Your task to perform on an android device: Add bose soundlink mini to the cart on bestbuy, then select checkout. Image 0: 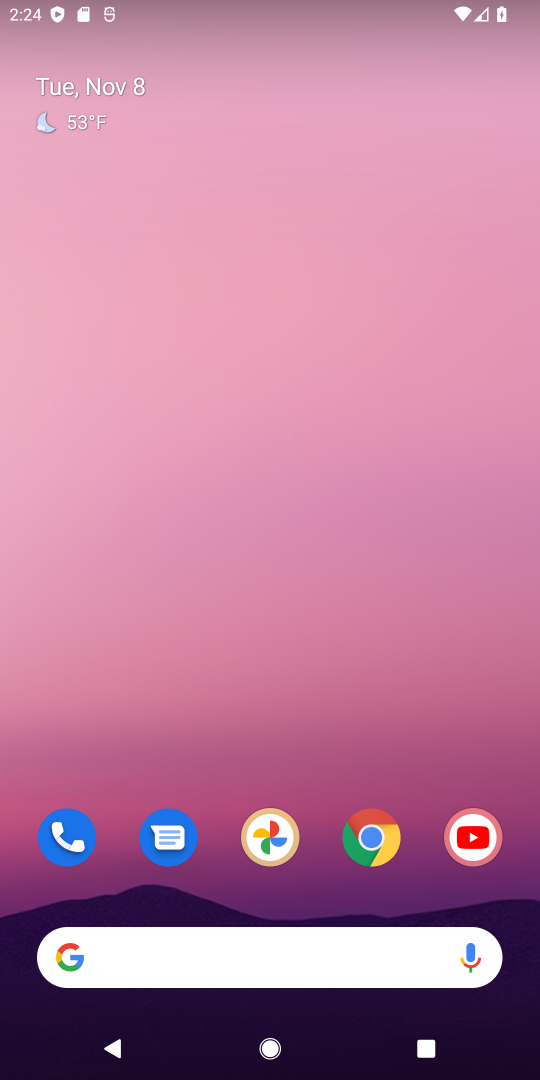
Step 0: click (377, 843)
Your task to perform on an android device: Add bose soundlink mini to the cart on bestbuy, then select checkout. Image 1: 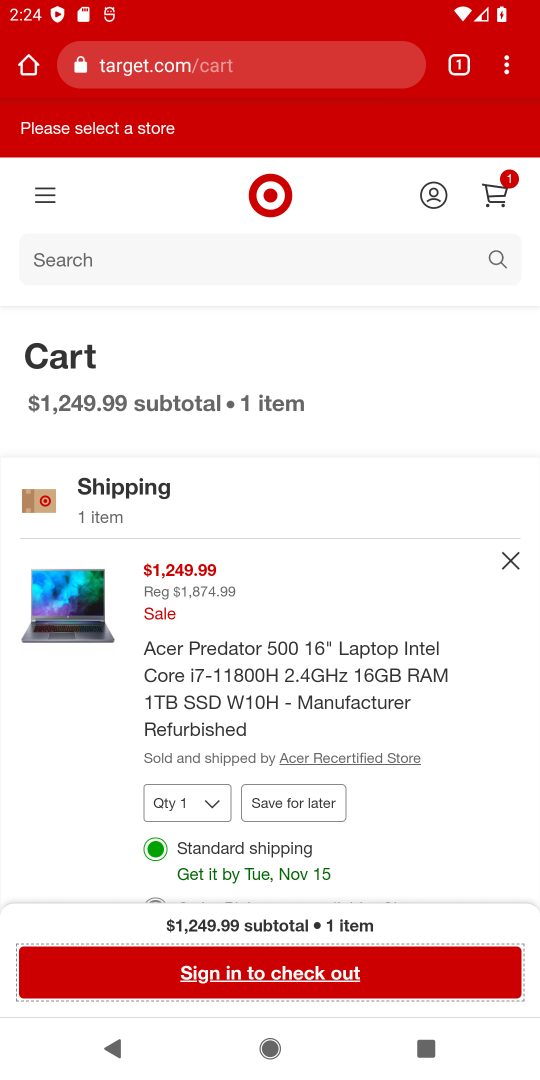
Step 1: press back button
Your task to perform on an android device: Add bose soundlink mini to the cart on bestbuy, then select checkout. Image 2: 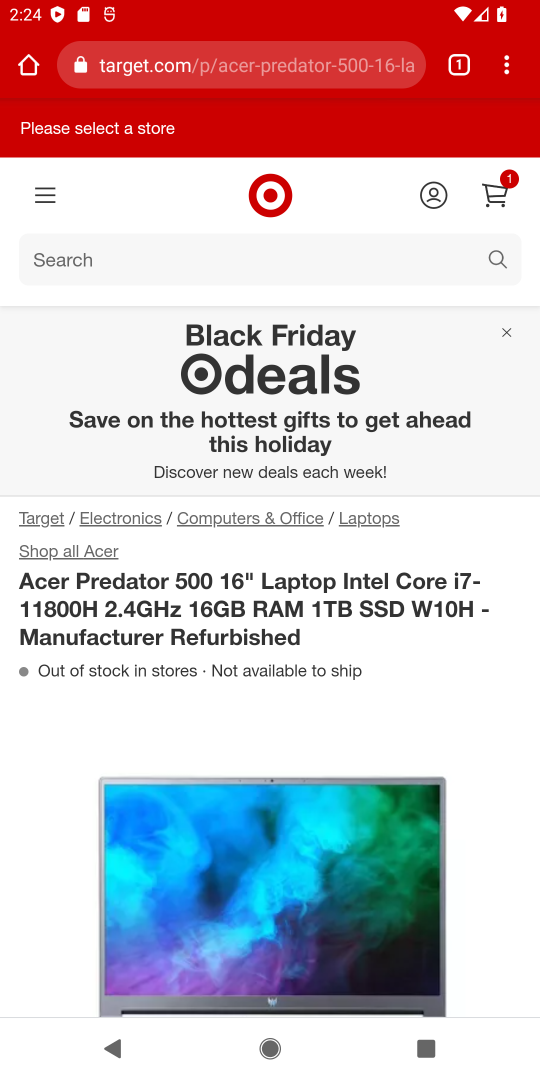
Step 2: press back button
Your task to perform on an android device: Add bose soundlink mini to the cart on bestbuy, then select checkout. Image 3: 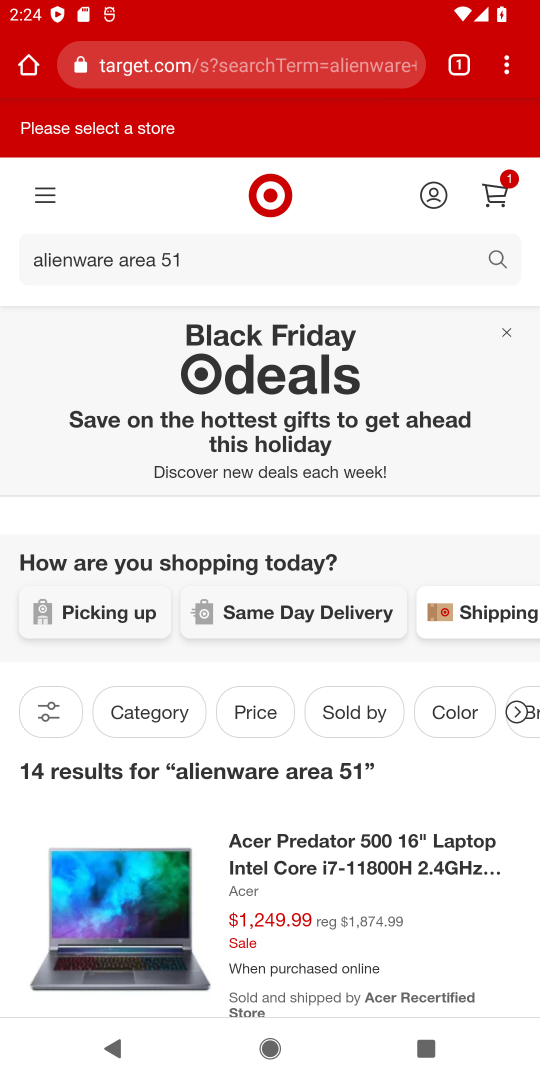
Step 3: press back button
Your task to perform on an android device: Add bose soundlink mini to the cart on bestbuy, then select checkout. Image 4: 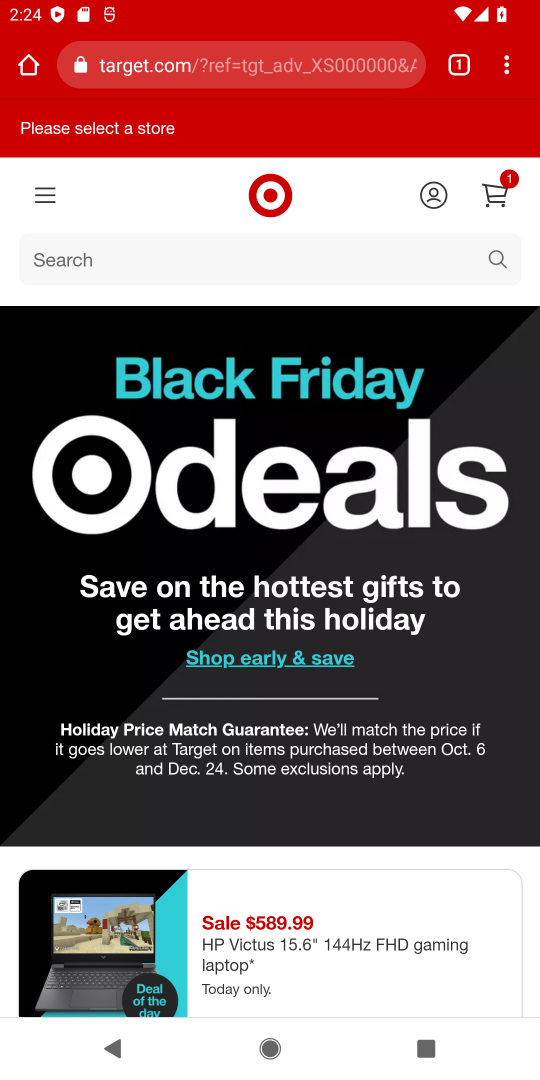
Step 4: press back button
Your task to perform on an android device: Add bose soundlink mini to the cart on bestbuy, then select checkout. Image 5: 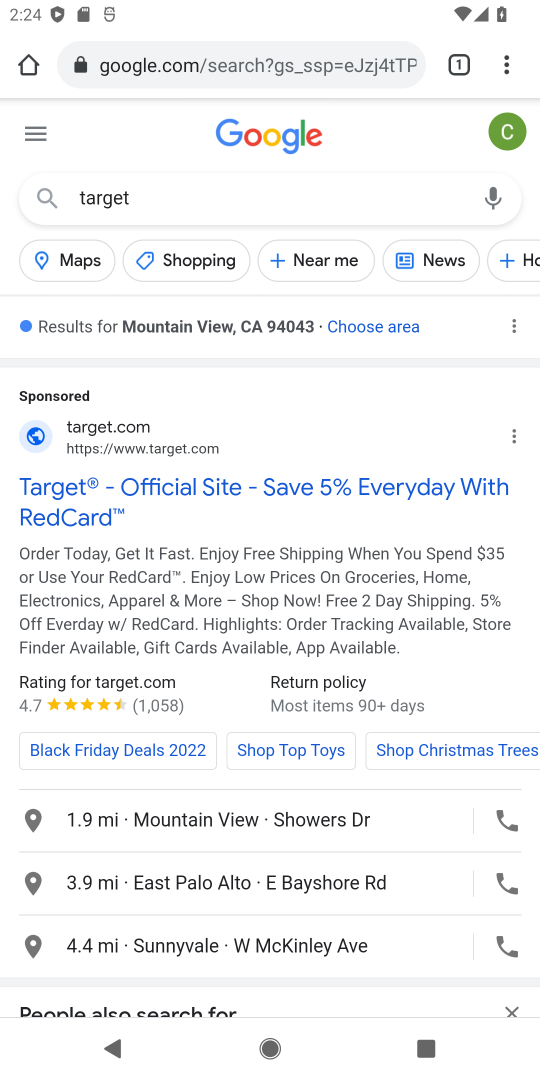
Step 5: click (165, 67)
Your task to perform on an android device: Add bose soundlink mini to the cart on bestbuy, then select checkout. Image 6: 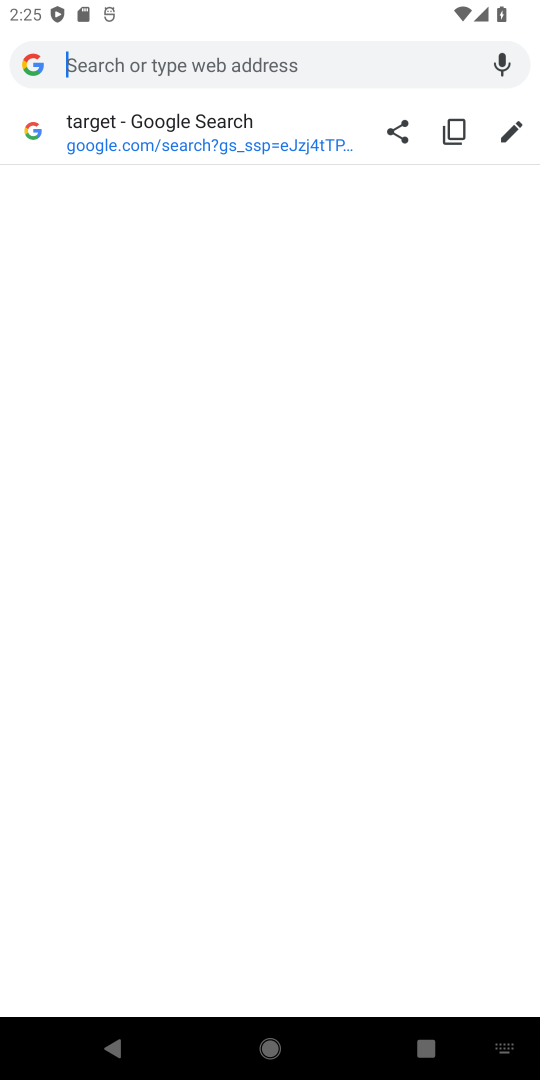
Step 6: type "bestbuy"
Your task to perform on an android device: Add bose soundlink mini to the cart on bestbuy, then select checkout. Image 7: 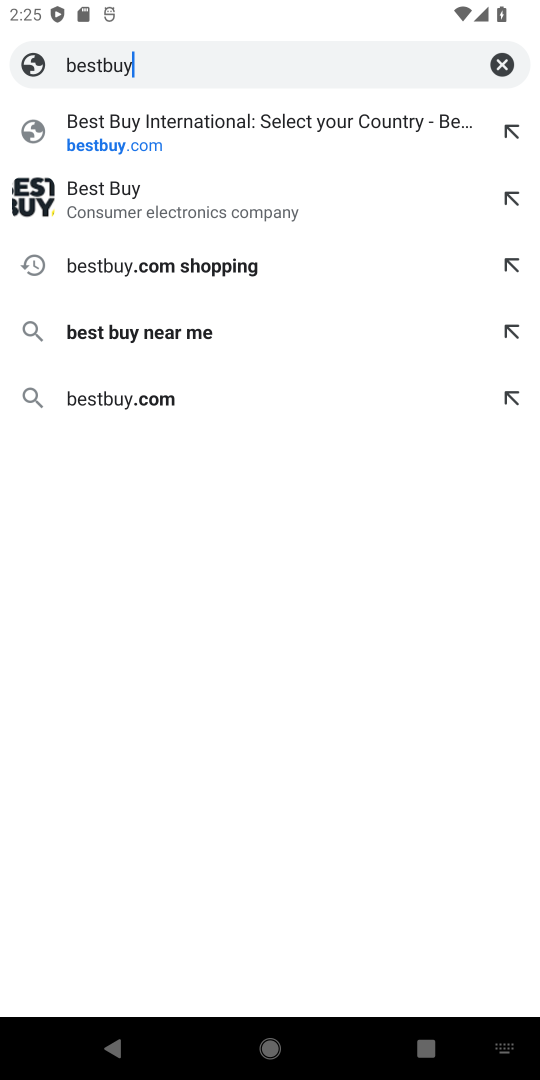
Step 7: click (83, 208)
Your task to perform on an android device: Add bose soundlink mini to the cart on bestbuy, then select checkout. Image 8: 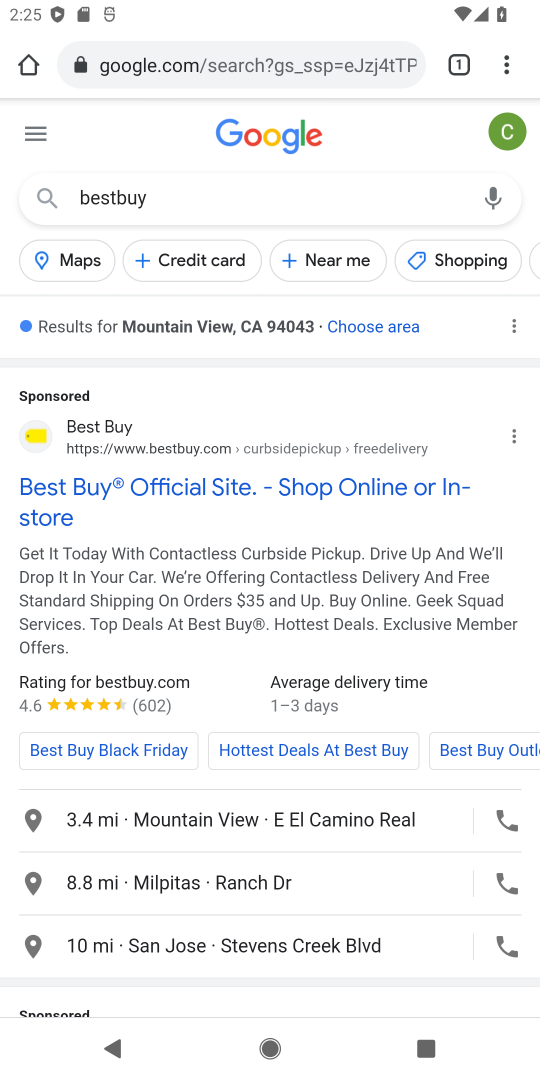
Step 8: click (184, 487)
Your task to perform on an android device: Add bose soundlink mini to the cart on bestbuy, then select checkout. Image 9: 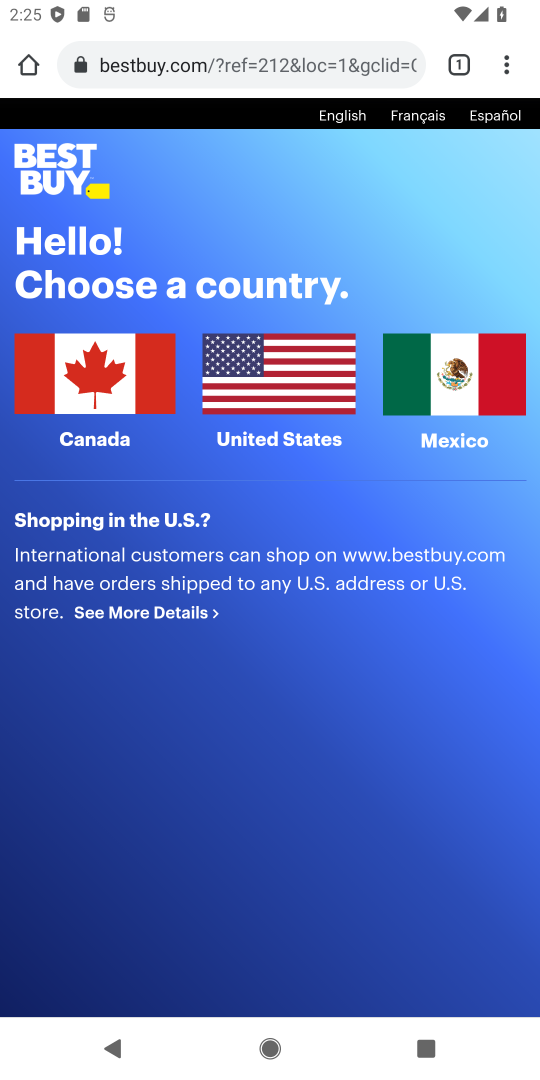
Step 9: click (80, 371)
Your task to perform on an android device: Add bose soundlink mini to the cart on bestbuy, then select checkout. Image 10: 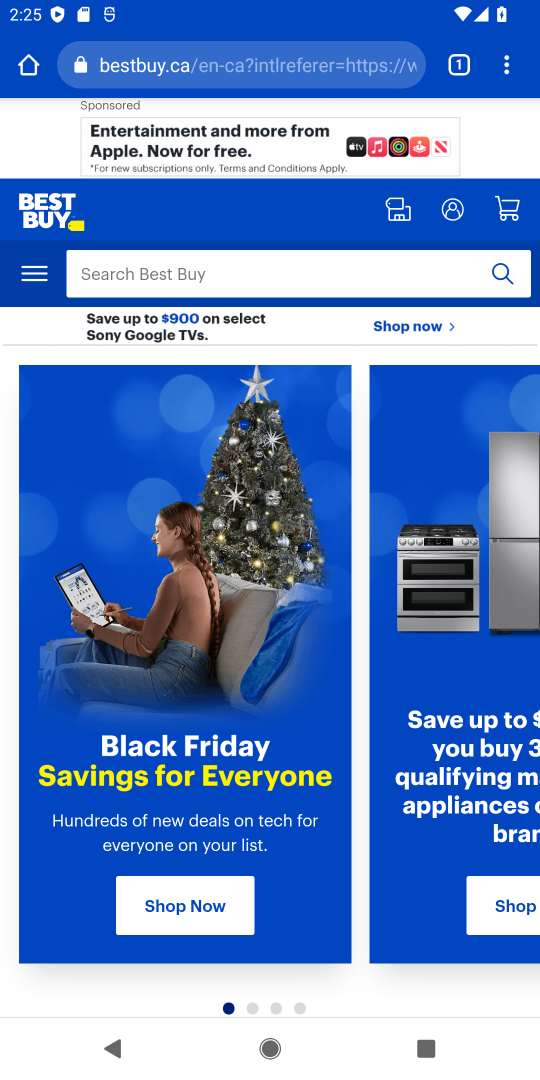
Step 10: click (165, 274)
Your task to perform on an android device: Add bose soundlink mini to the cart on bestbuy, then select checkout. Image 11: 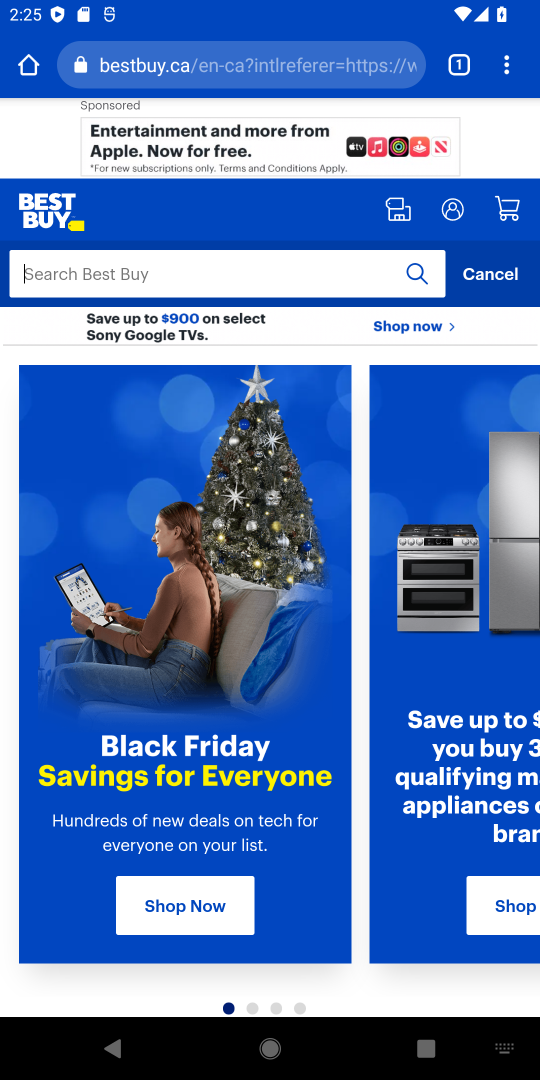
Step 11: type "bose soundlink mini"
Your task to perform on an android device: Add bose soundlink mini to the cart on bestbuy, then select checkout. Image 12: 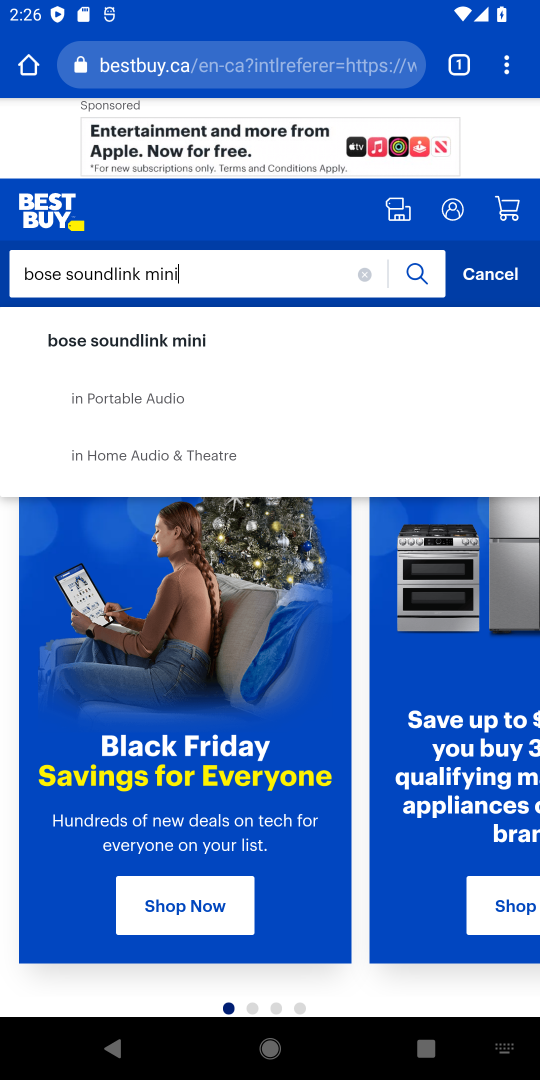
Step 12: click (182, 347)
Your task to perform on an android device: Add bose soundlink mini to the cart on bestbuy, then select checkout. Image 13: 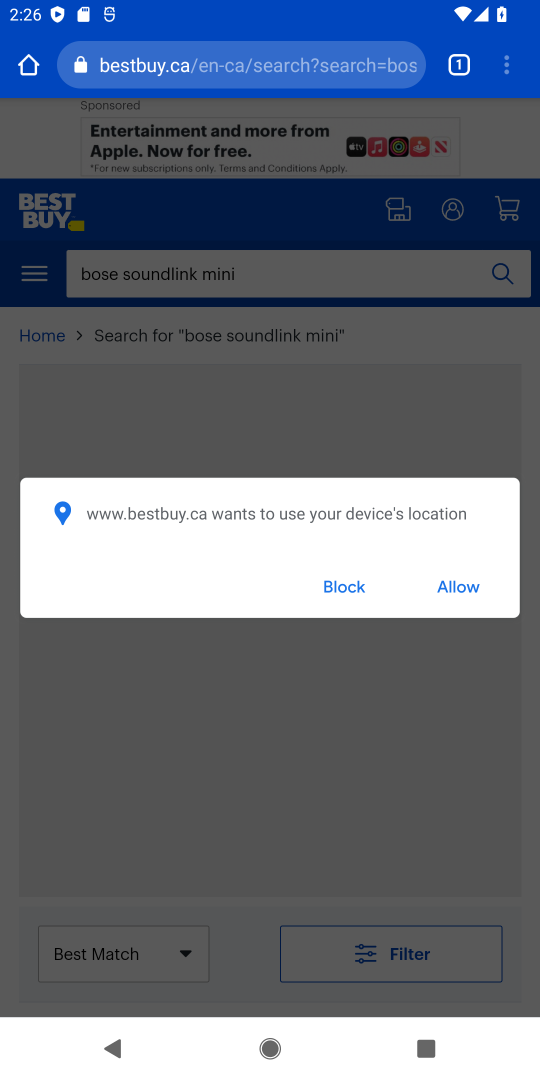
Step 13: click (458, 584)
Your task to perform on an android device: Add bose soundlink mini to the cart on bestbuy, then select checkout. Image 14: 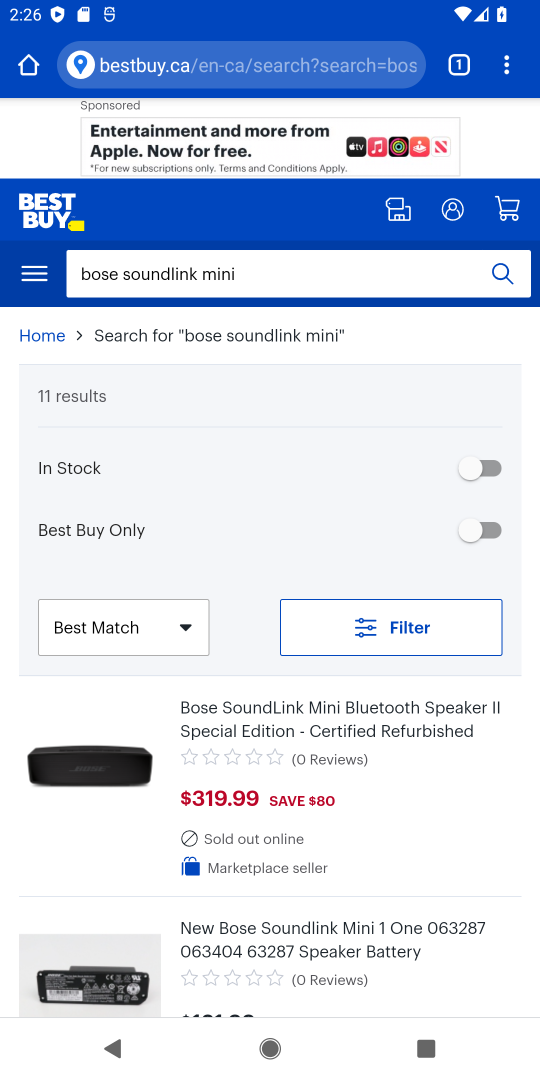
Step 14: drag from (401, 804) to (382, 328)
Your task to perform on an android device: Add bose soundlink mini to the cart on bestbuy, then select checkout. Image 15: 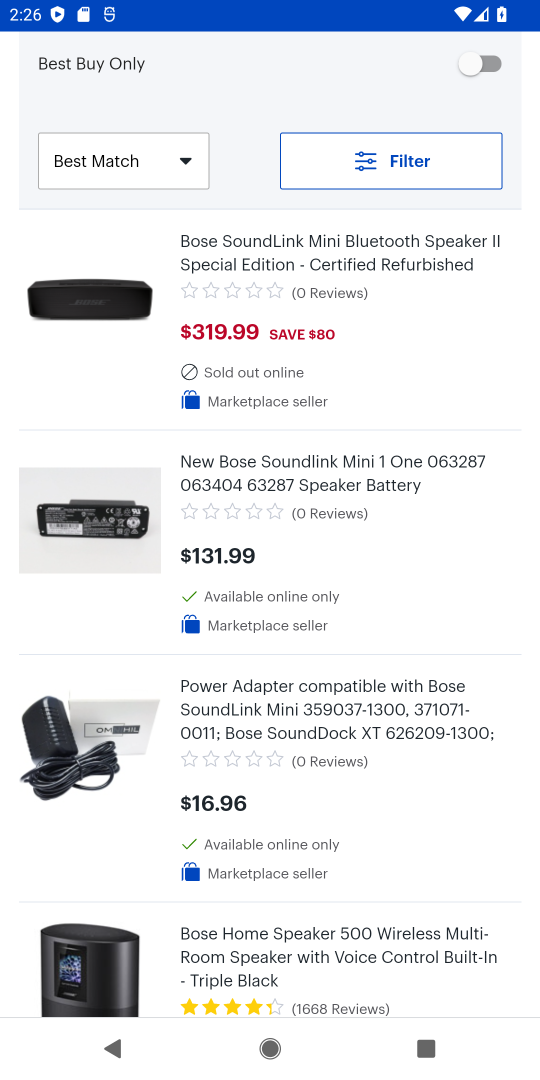
Step 15: click (248, 234)
Your task to perform on an android device: Add bose soundlink mini to the cart on bestbuy, then select checkout. Image 16: 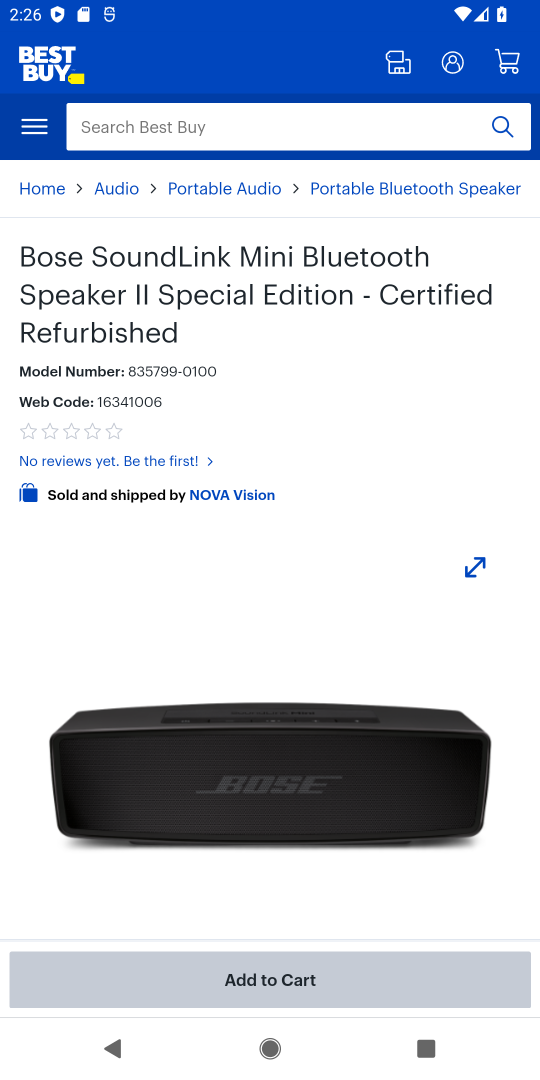
Step 16: drag from (261, 594) to (317, 107)
Your task to perform on an android device: Add bose soundlink mini to the cart on bestbuy, then select checkout. Image 17: 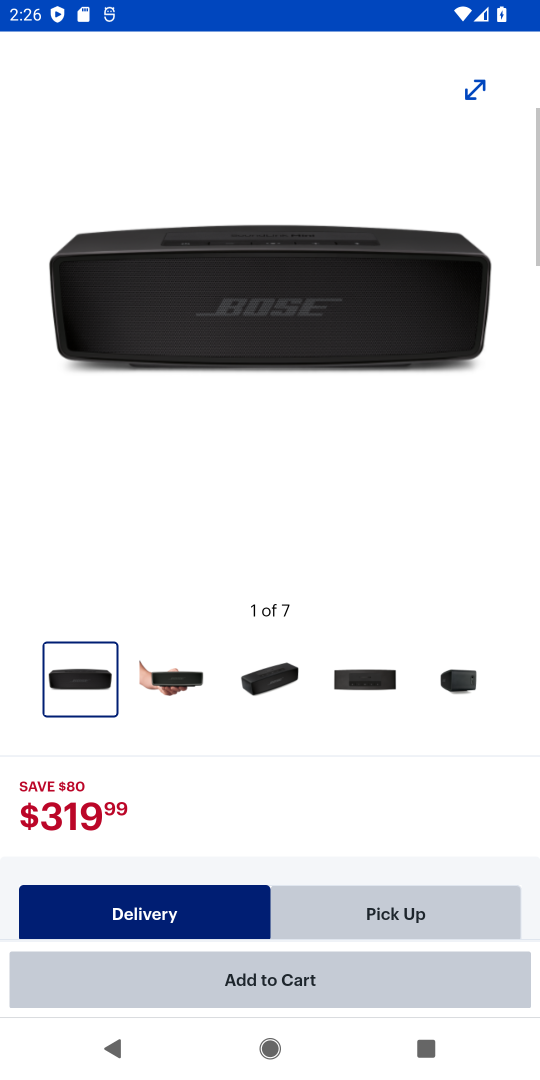
Step 17: drag from (414, 690) to (372, 102)
Your task to perform on an android device: Add bose soundlink mini to the cart on bestbuy, then select checkout. Image 18: 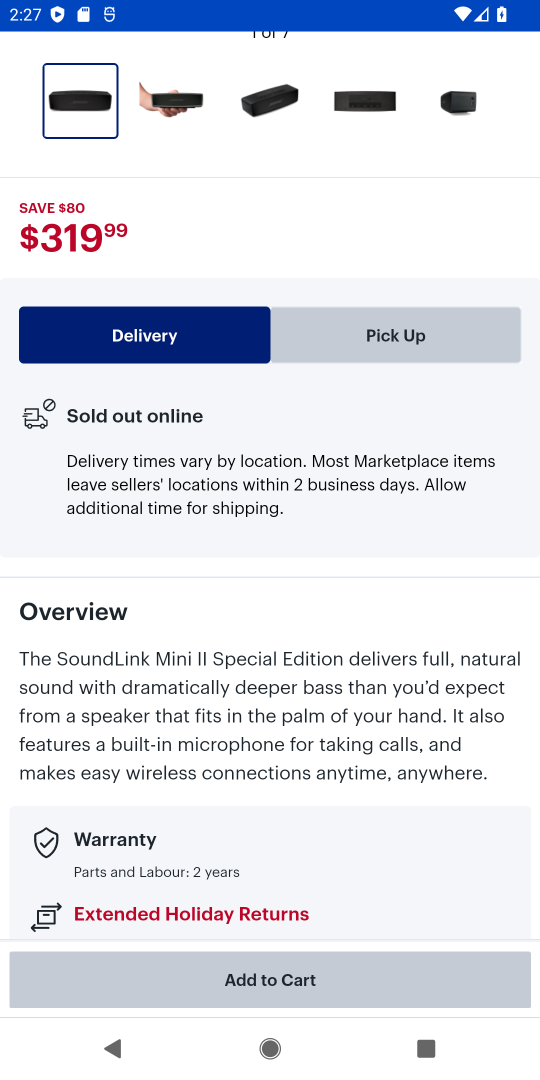
Step 18: drag from (300, 726) to (300, 229)
Your task to perform on an android device: Add bose soundlink mini to the cart on bestbuy, then select checkout. Image 19: 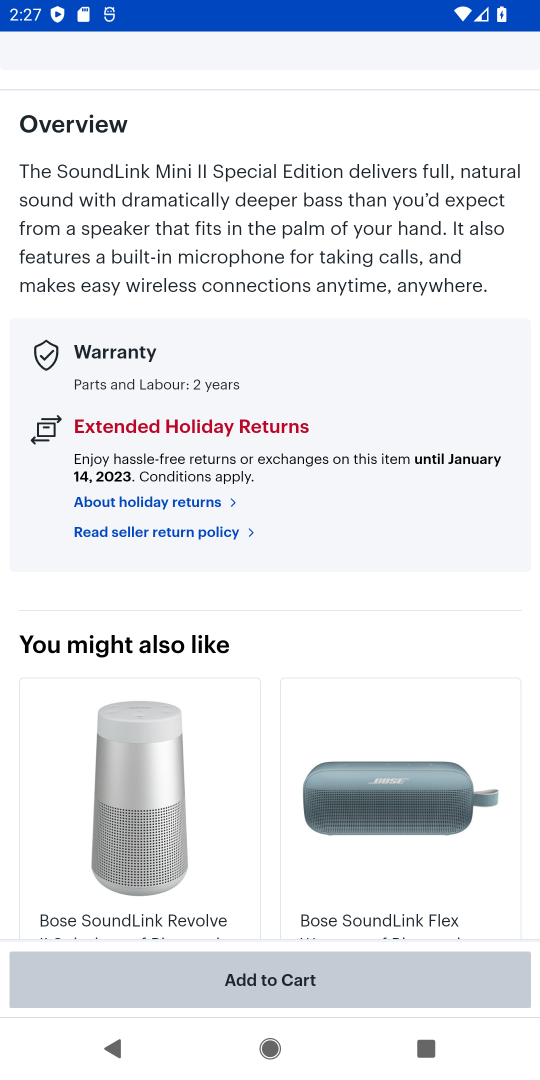
Step 19: drag from (335, 694) to (335, 404)
Your task to perform on an android device: Add bose soundlink mini to the cart on bestbuy, then select checkout. Image 20: 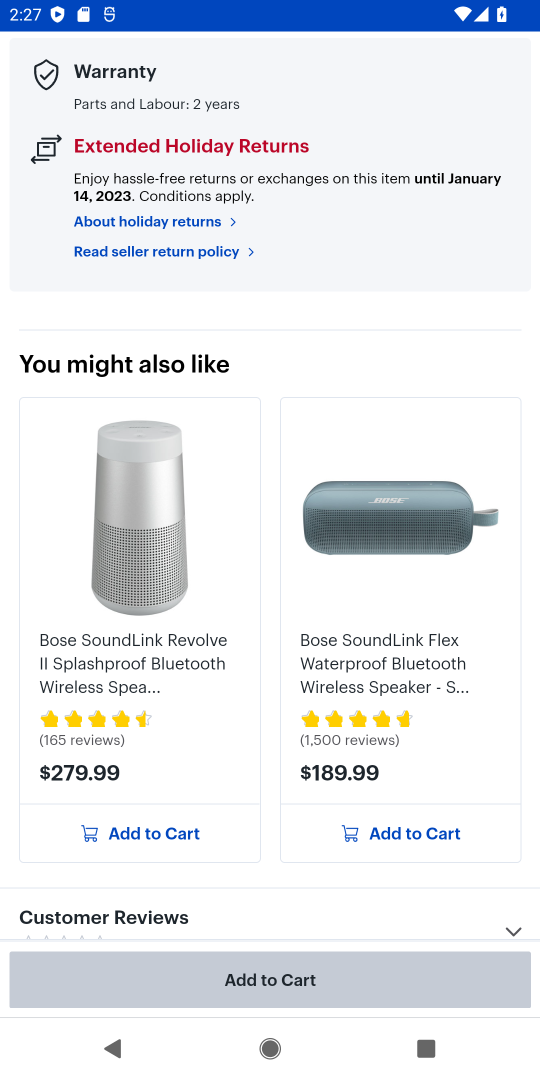
Step 20: click (263, 985)
Your task to perform on an android device: Add bose soundlink mini to the cart on bestbuy, then select checkout. Image 21: 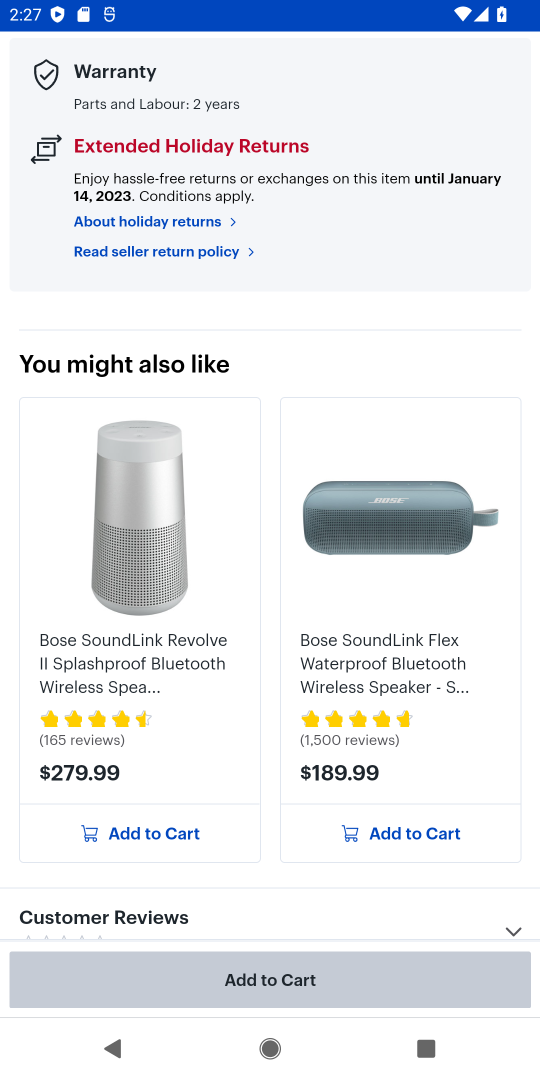
Step 21: click (292, 987)
Your task to perform on an android device: Add bose soundlink mini to the cart on bestbuy, then select checkout. Image 22: 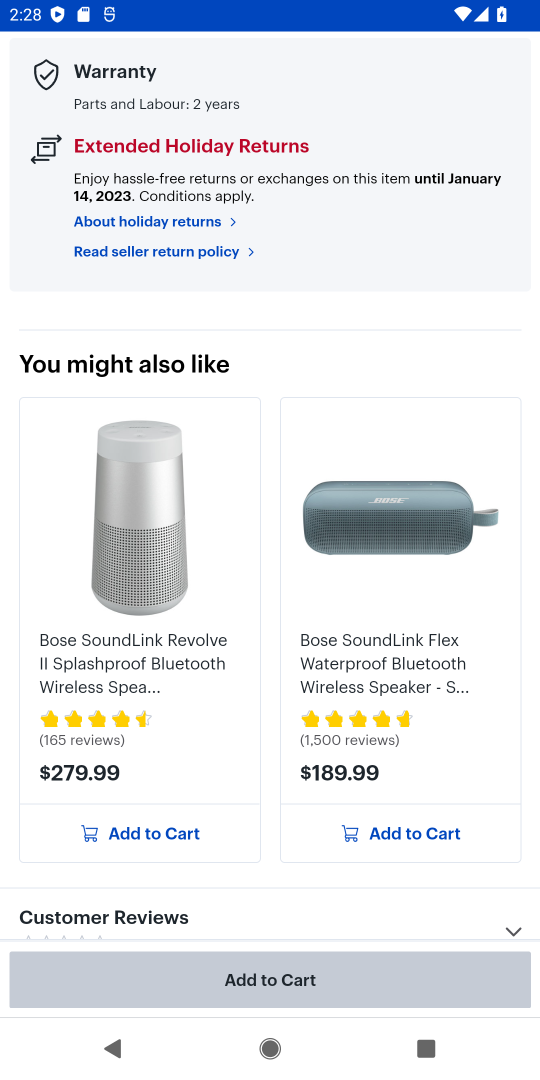
Step 22: click (245, 976)
Your task to perform on an android device: Add bose soundlink mini to the cart on bestbuy, then select checkout. Image 23: 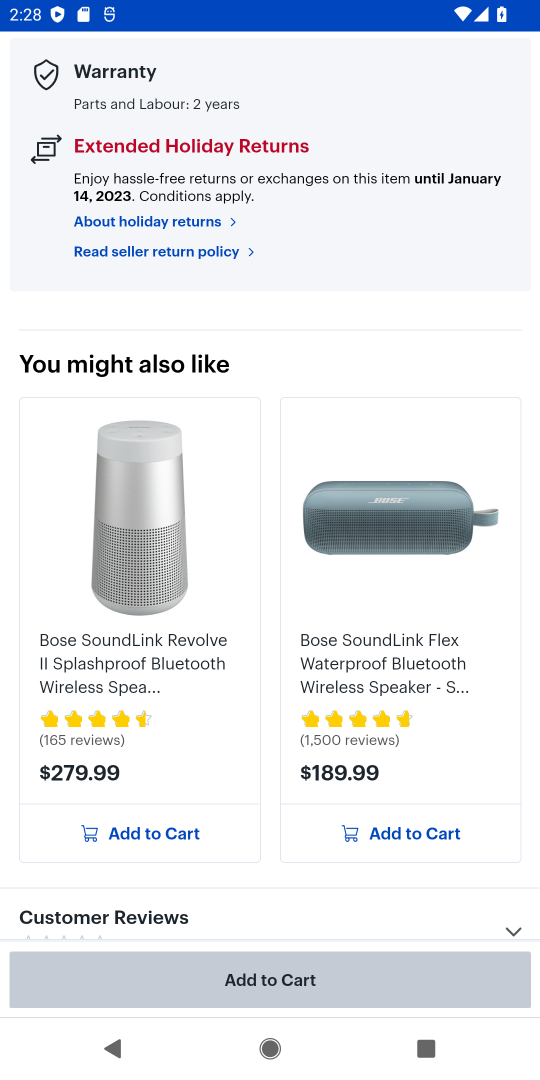
Step 23: click (245, 976)
Your task to perform on an android device: Add bose soundlink mini to the cart on bestbuy, then select checkout. Image 24: 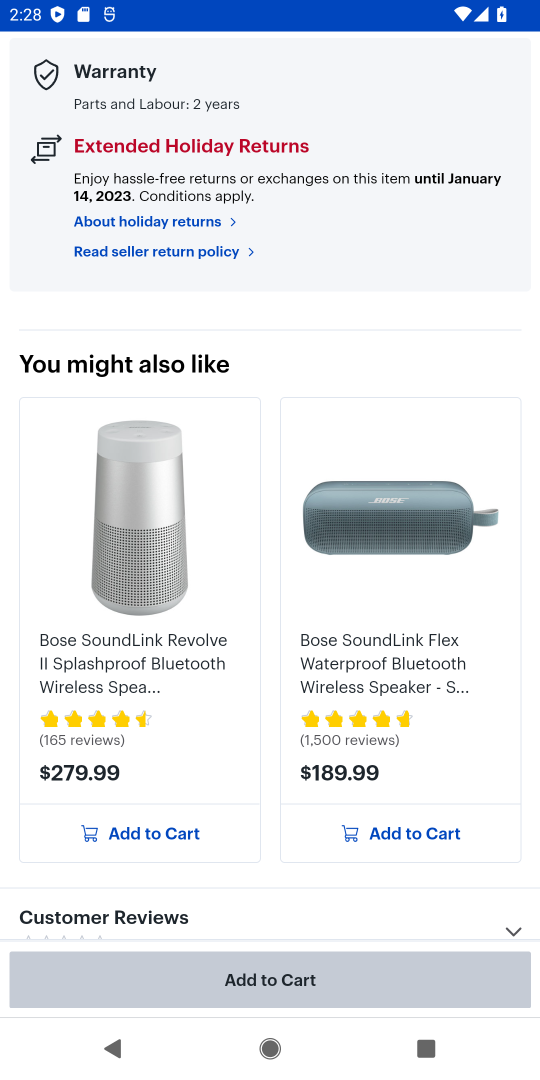
Step 24: click (320, 987)
Your task to perform on an android device: Add bose soundlink mini to the cart on bestbuy, then select checkout. Image 25: 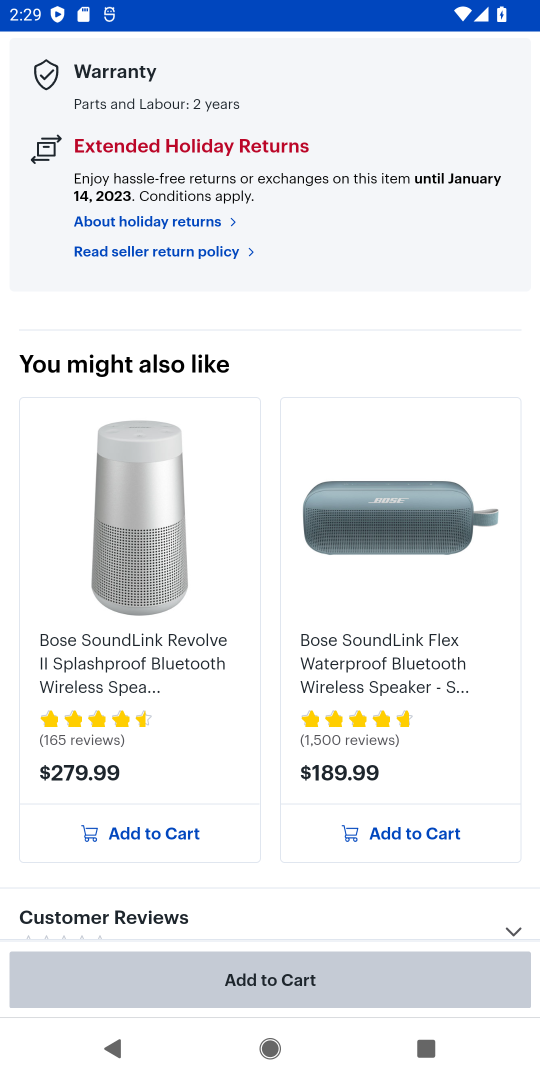
Step 25: click (251, 982)
Your task to perform on an android device: Add bose soundlink mini to the cart on bestbuy, then select checkout. Image 26: 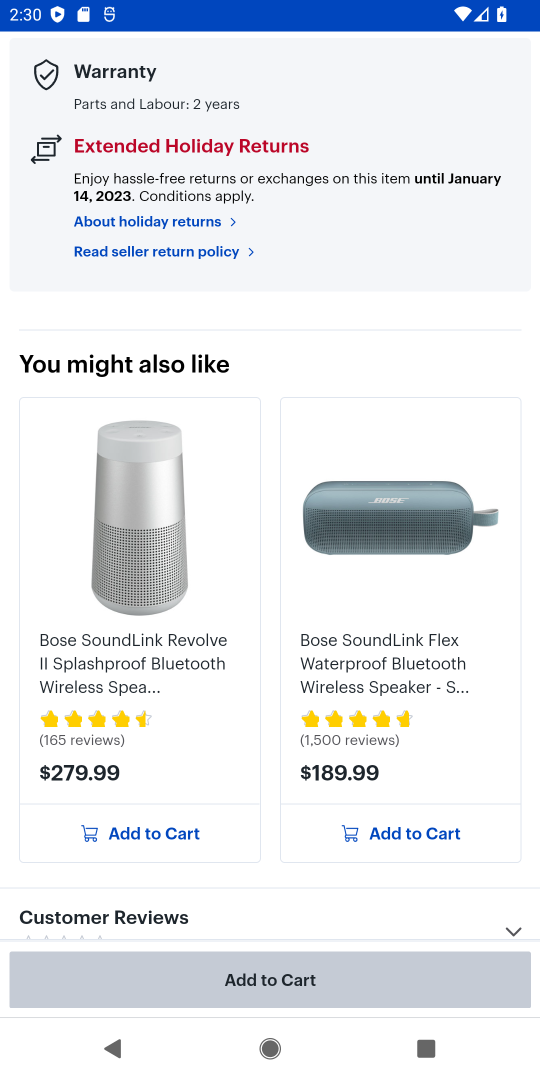
Step 26: click (277, 981)
Your task to perform on an android device: Add bose soundlink mini to the cart on bestbuy, then select checkout. Image 27: 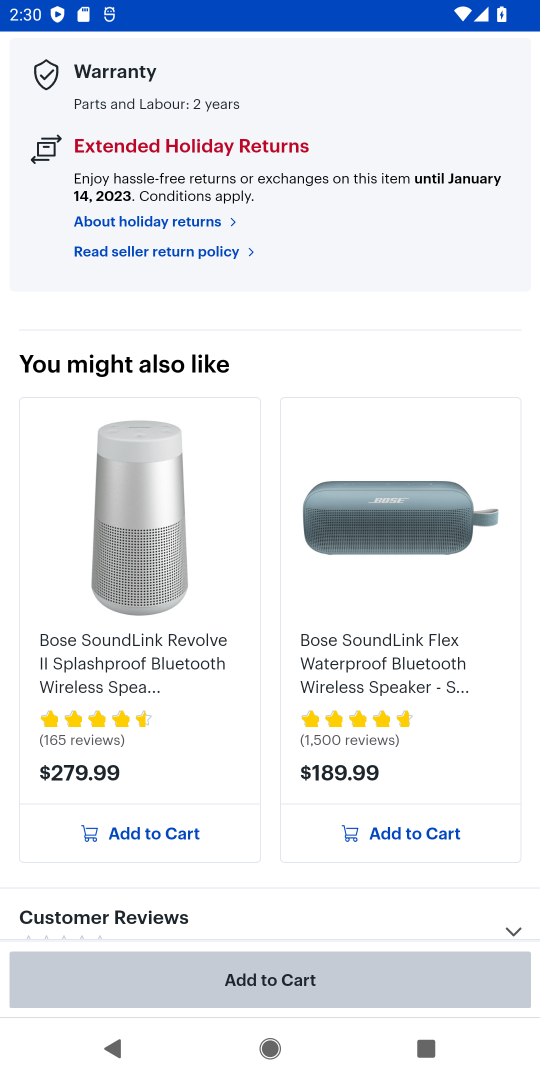
Step 27: click (285, 984)
Your task to perform on an android device: Add bose soundlink mini to the cart on bestbuy, then select checkout. Image 28: 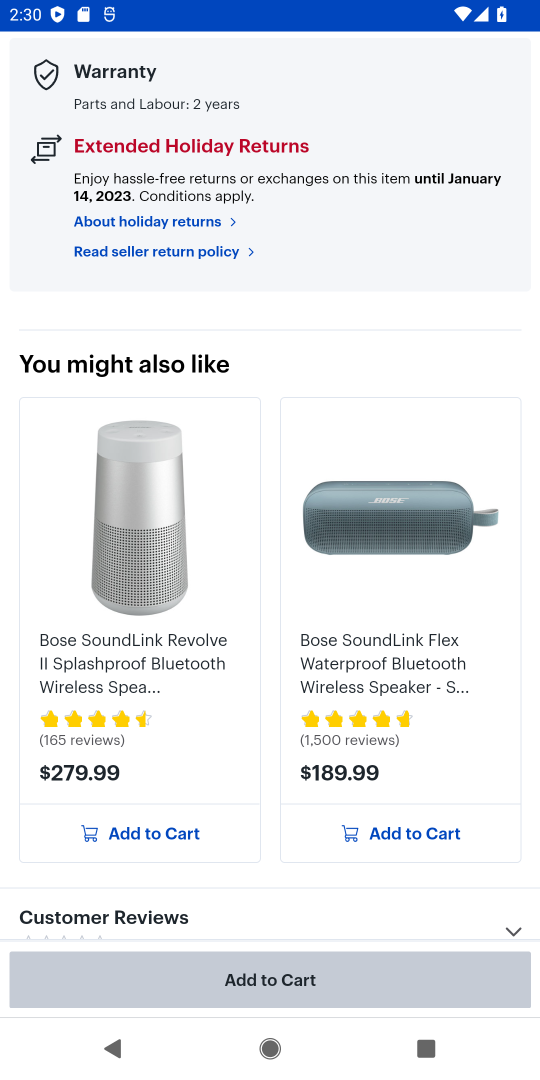
Step 28: click (290, 989)
Your task to perform on an android device: Add bose soundlink mini to the cart on bestbuy, then select checkout. Image 29: 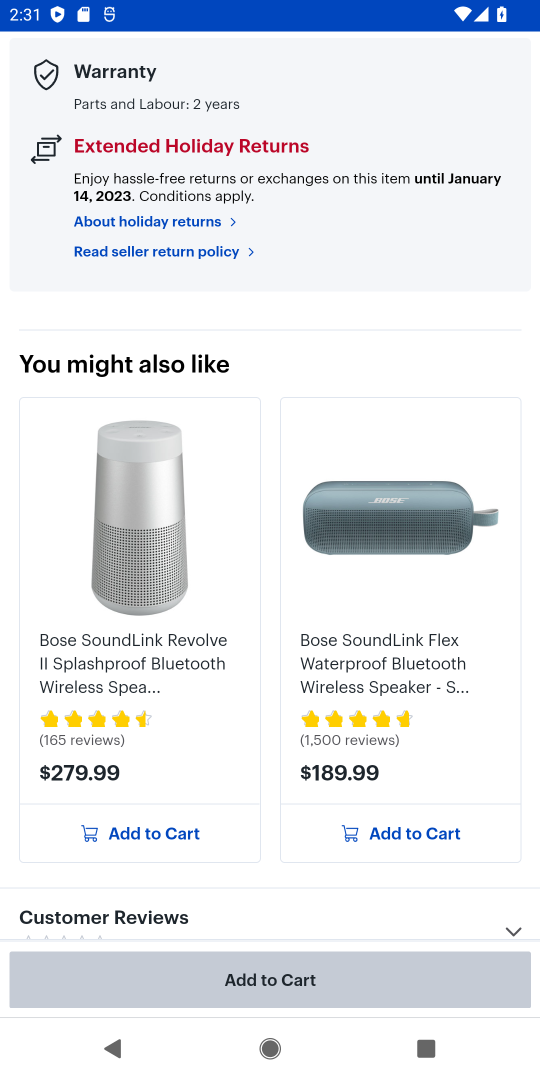
Step 29: click (262, 982)
Your task to perform on an android device: Add bose soundlink mini to the cart on bestbuy, then select checkout. Image 30: 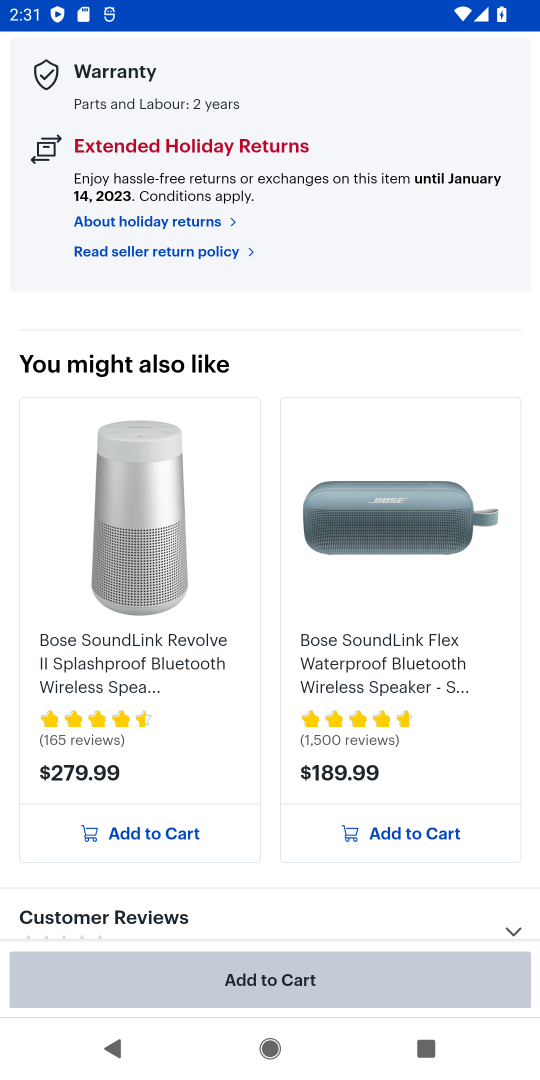
Step 30: click (263, 980)
Your task to perform on an android device: Add bose soundlink mini to the cart on bestbuy, then select checkout. Image 31: 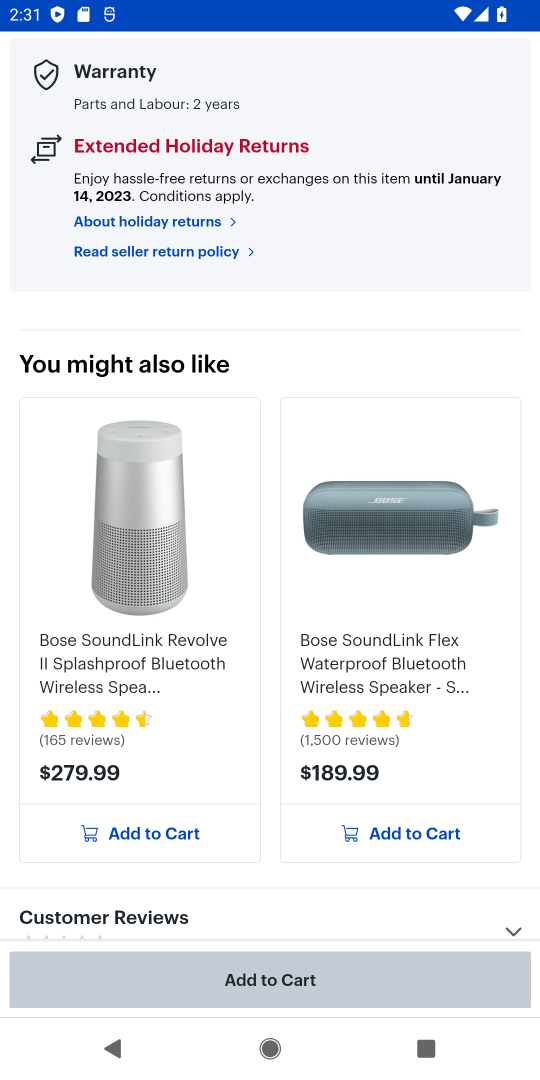
Step 31: click (264, 980)
Your task to perform on an android device: Add bose soundlink mini to the cart on bestbuy, then select checkout. Image 32: 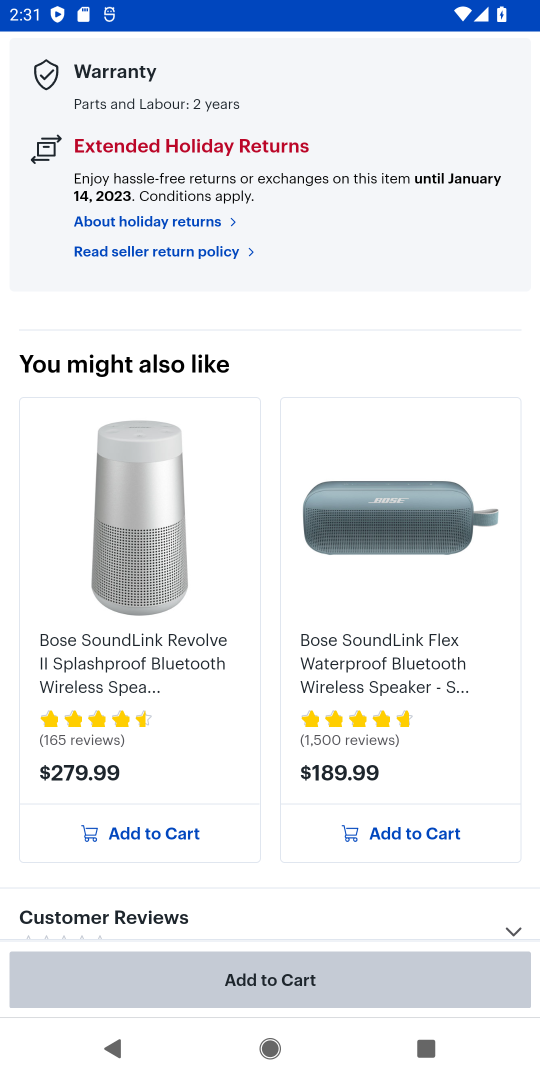
Step 32: drag from (299, 218) to (272, 978)
Your task to perform on an android device: Add bose soundlink mini to the cart on bestbuy, then select checkout. Image 33: 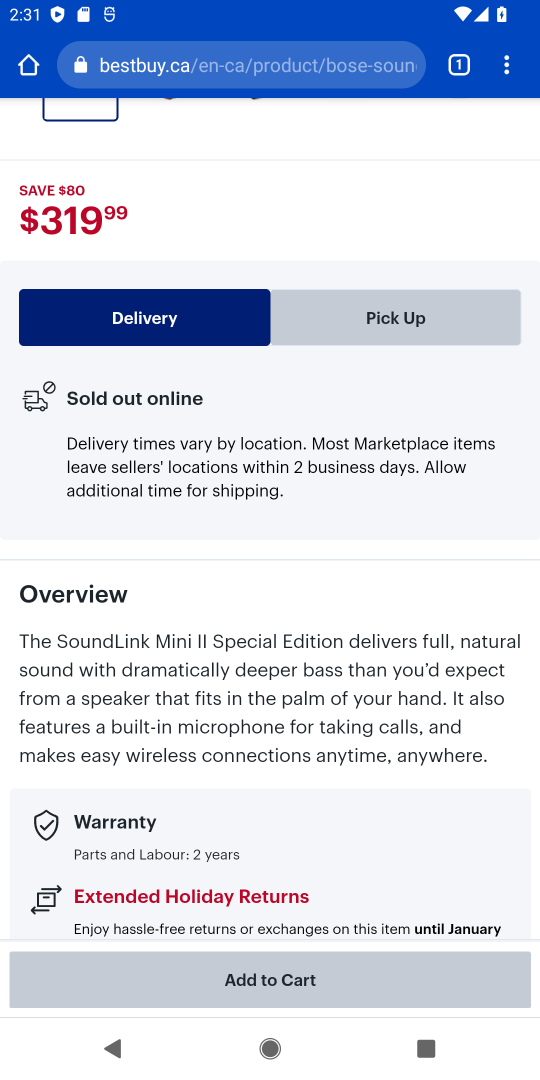
Step 33: drag from (325, 394) to (255, 1026)
Your task to perform on an android device: Add bose soundlink mini to the cart on bestbuy, then select checkout. Image 34: 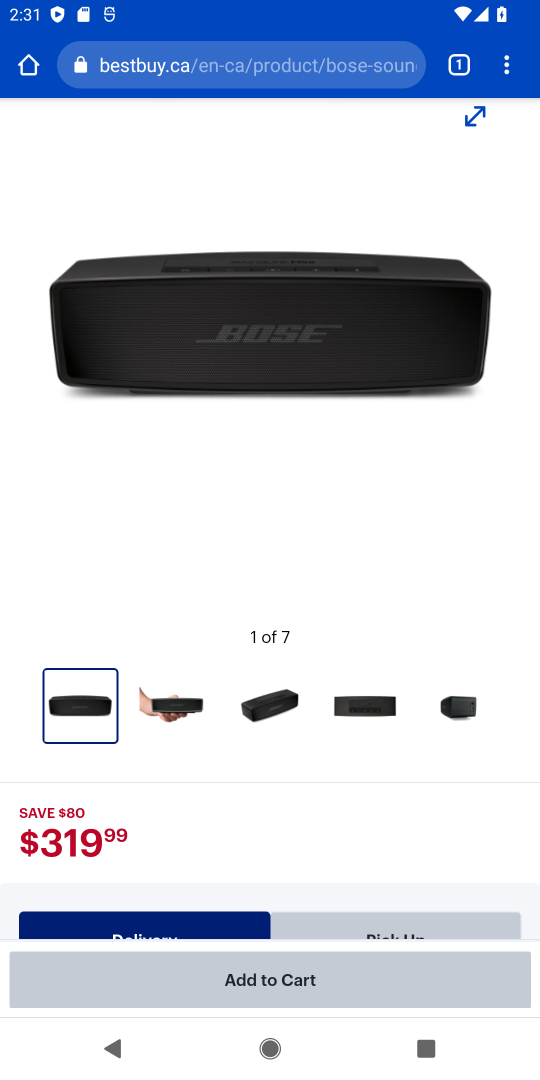
Step 34: click (246, 328)
Your task to perform on an android device: Add bose soundlink mini to the cart on bestbuy, then select checkout. Image 35: 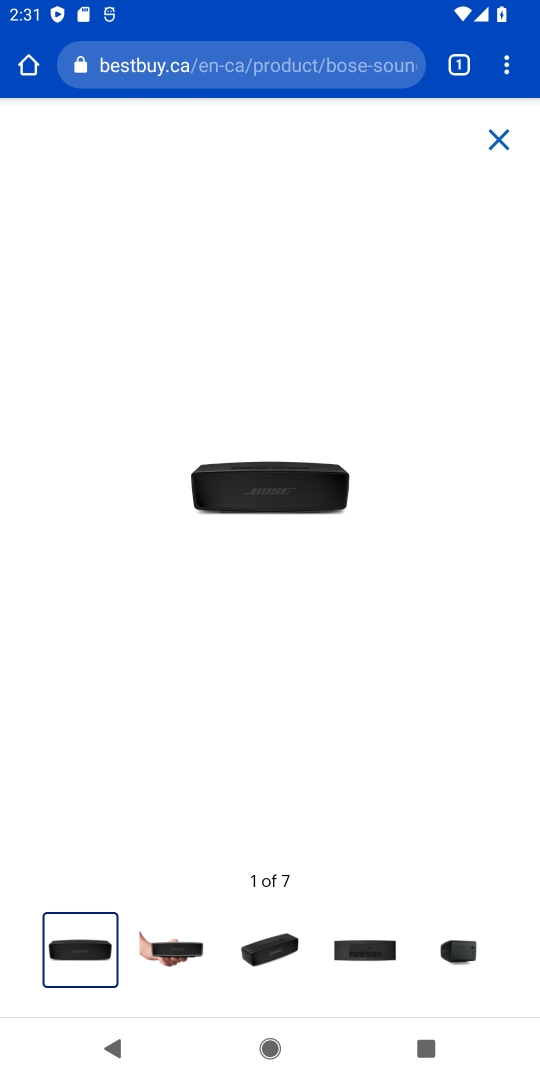
Step 35: task complete